Your task to perform on an android device: turn on the 24-hour format for clock Image 0: 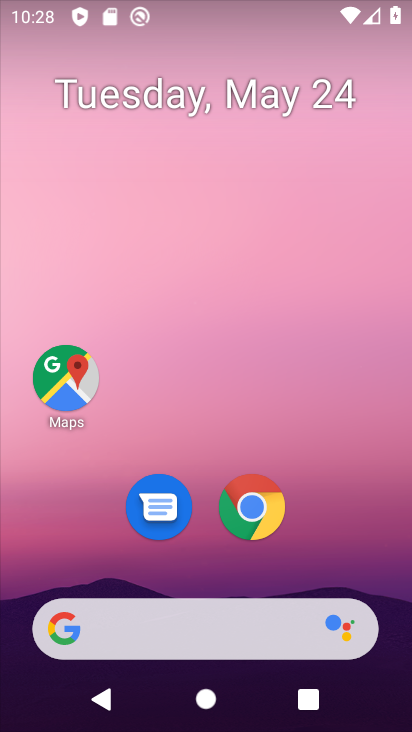
Step 0: drag from (207, 628) to (285, 110)
Your task to perform on an android device: turn on the 24-hour format for clock Image 1: 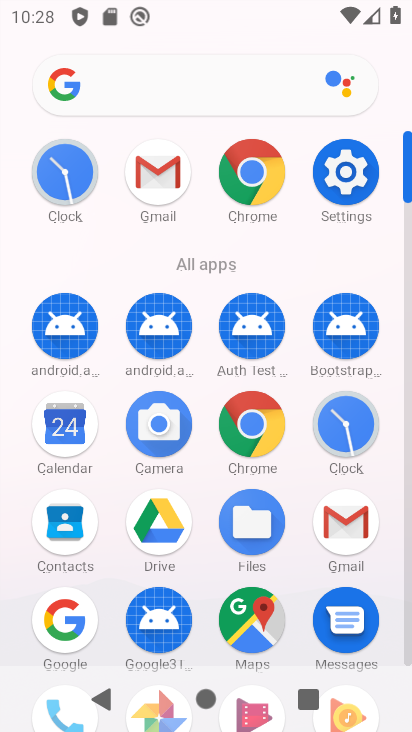
Step 1: click (361, 400)
Your task to perform on an android device: turn on the 24-hour format for clock Image 2: 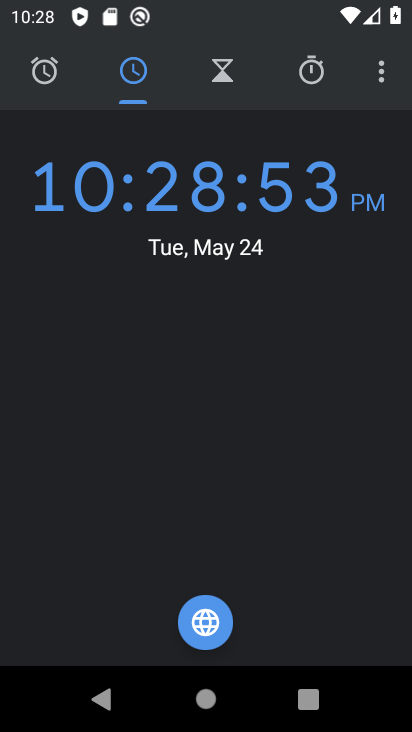
Step 2: click (373, 74)
Your task to perform on an android device: turn on the 24-hour format for clock Image 3: 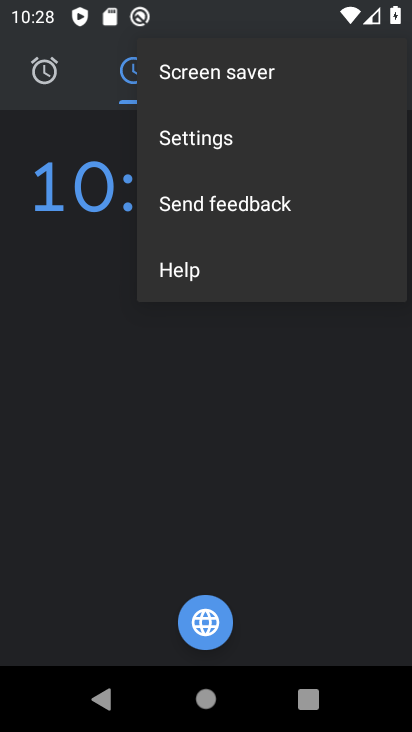
Step 3: click (250, 135)
Your task to perform on an android device: turn on the 24-hour format for clock Image 4: 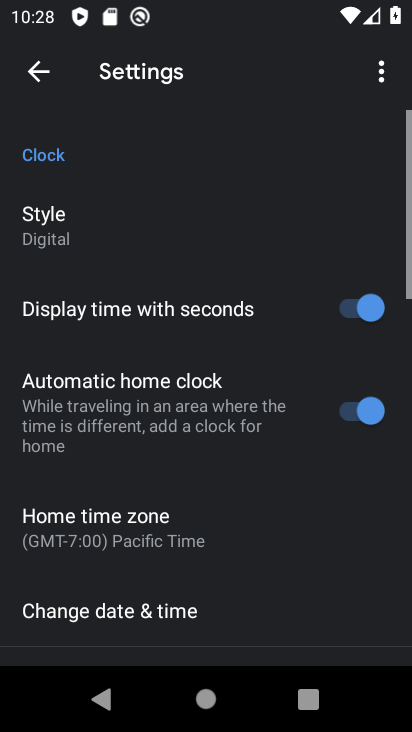
Step 4: drag from (239, 621) to (246, 210)
Your task to perform on an android device: turn on the 24-hour format for clock Image 5: 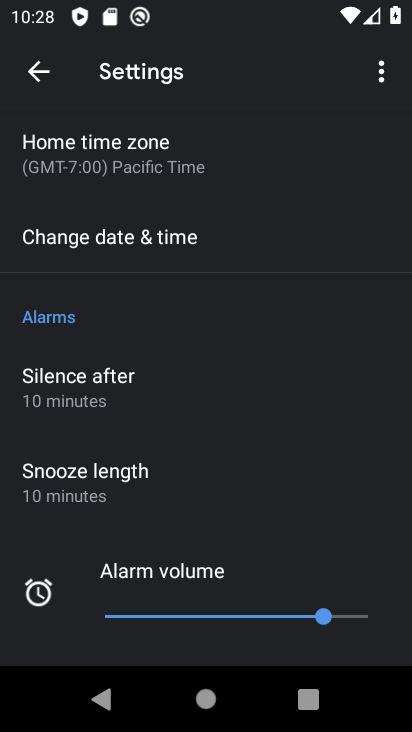
Step 5: click (182, 232)
Your task to perform on an android device: turn on the 24-hour format for clock Image 6: 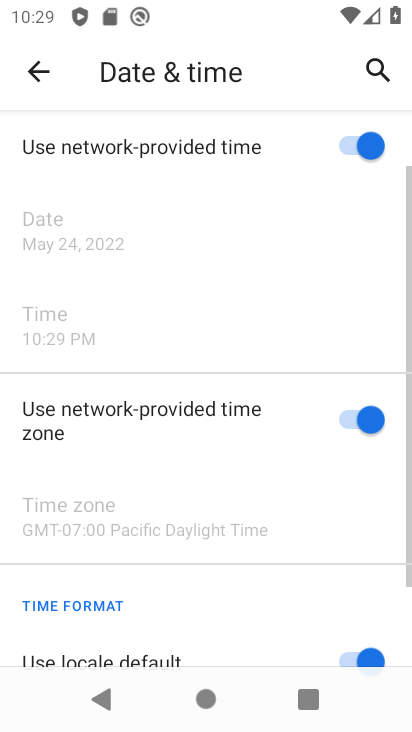
Step 6: drag from (144, 593) to (212, 321)
Your task to perform on an android device: turn on the 24-hour format for clock Image 7: 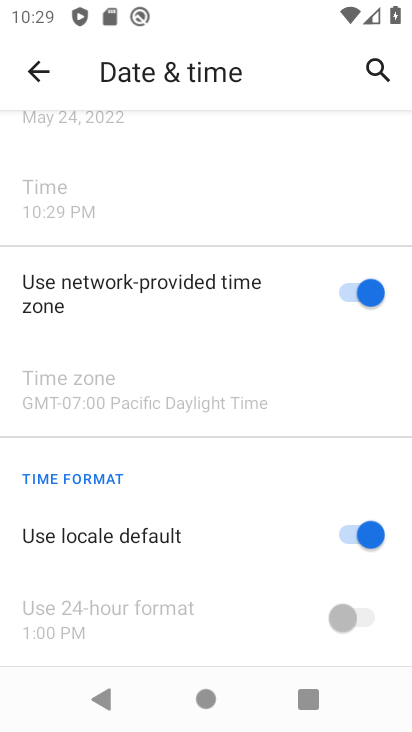
Step 7: click (340, 533)
Your task to perform on an android device: turn on the 24-hour format for clock Image 8: 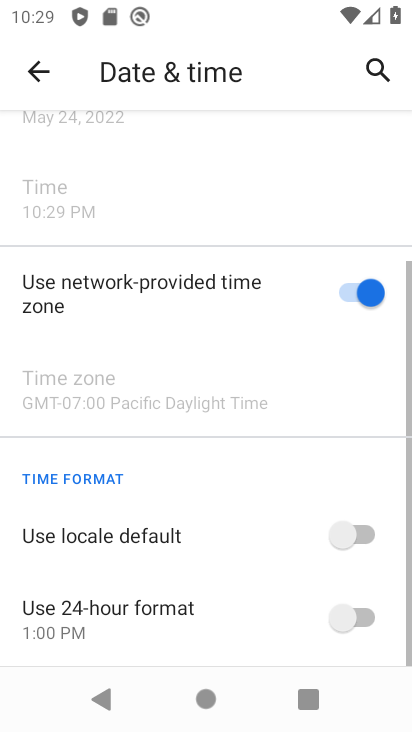
Step 8: click (368, 615)
Your task to perform on an android device: turn on the 24-hour format for clock Image 9: 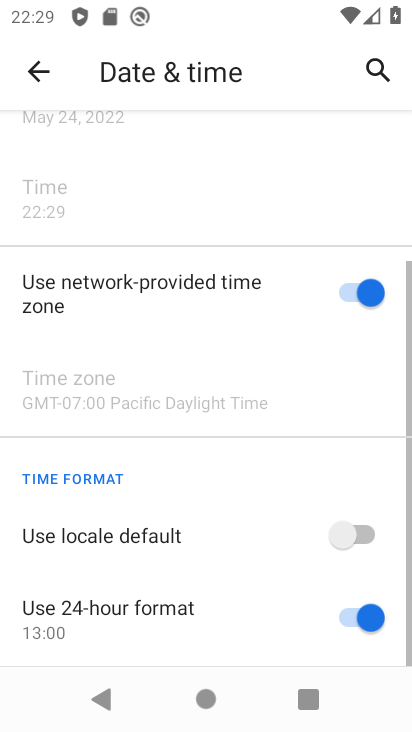
Step 9: task complete